Your task to perform on an android device: Open settings on Google Maps Image 0: 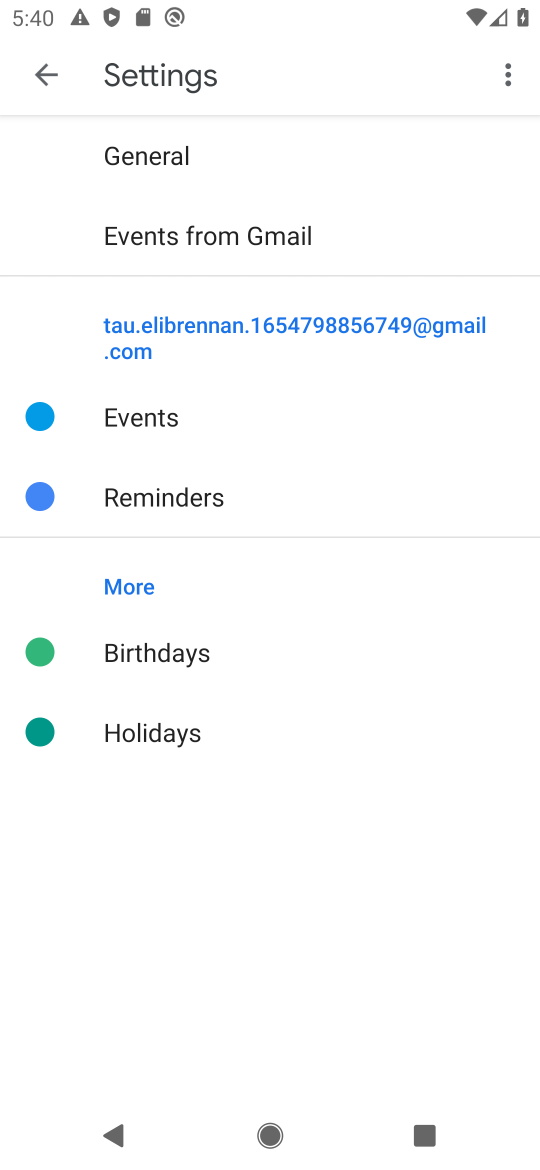
Step 0: press home button
Your task to perform on an android device: Open settings on Google Maps Image 1: 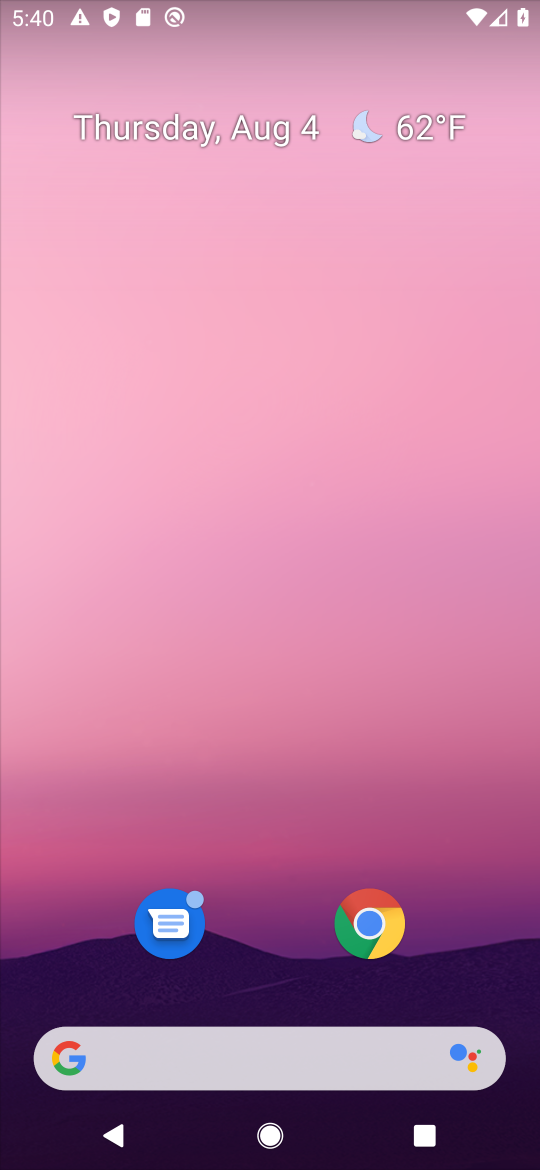
Step 1: drag from (267, 917) to (255, 371)
Your task to perform on an android device: Open settings on Google Maps Image 2: 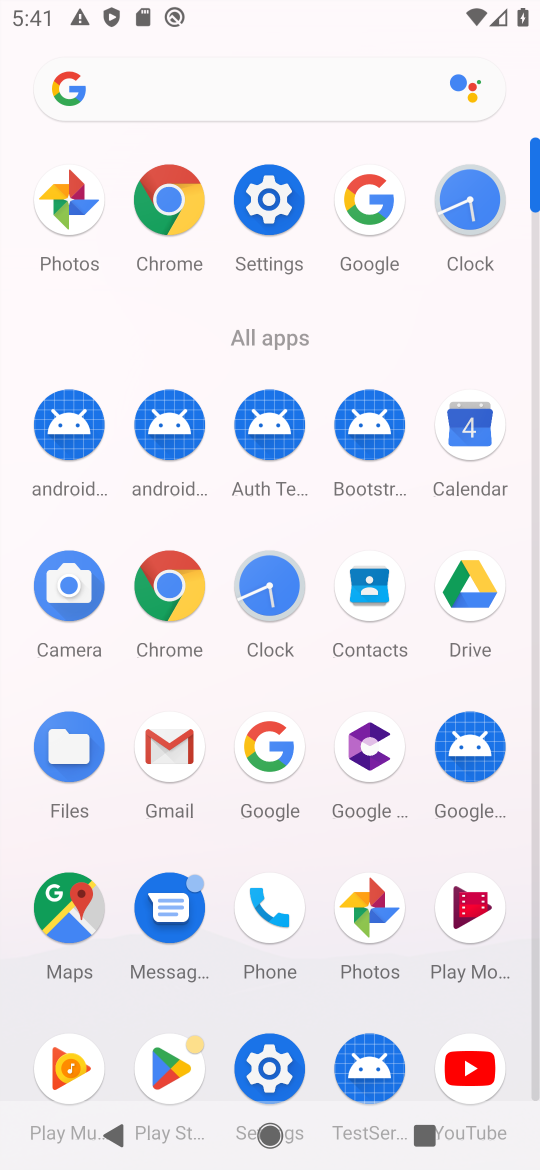
Step 2: click (65, 895)
Your task to perform on an android device: Open settings on Google Maps Image 3: 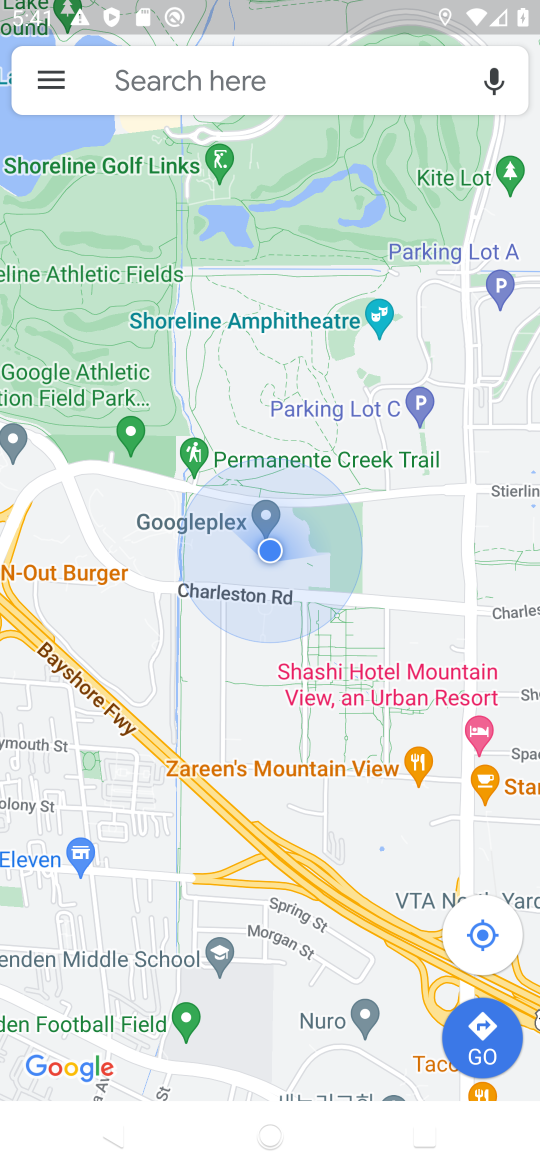
Step 3: click (51, 72)
Your task to perform on an android device: Open settings on Google Maps Image 4: 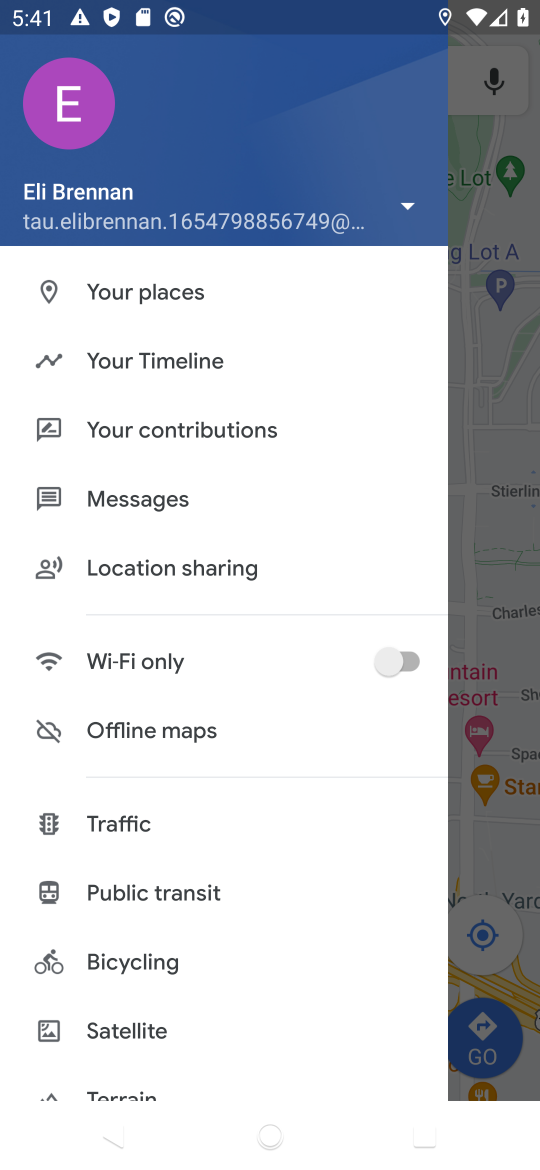
Step 4: drag from (382, 994) to (324, 448)
Your task to perform on an android device: Open settings on Google Maps Image 5: 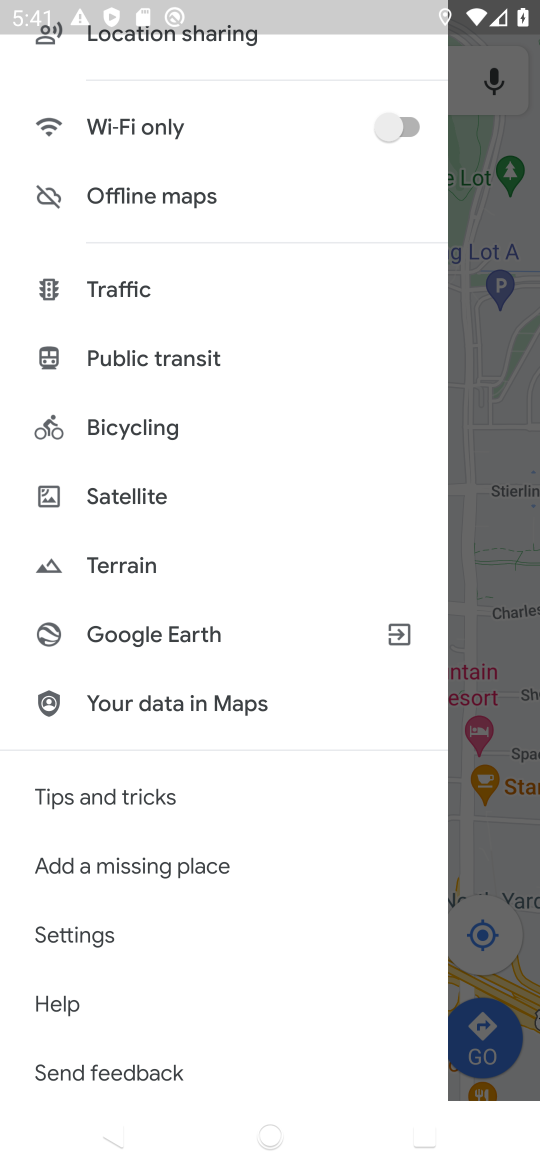
Step 5: click (89, 938)
Your task to perform on an android device: Open settings on Google Maps Image 6: 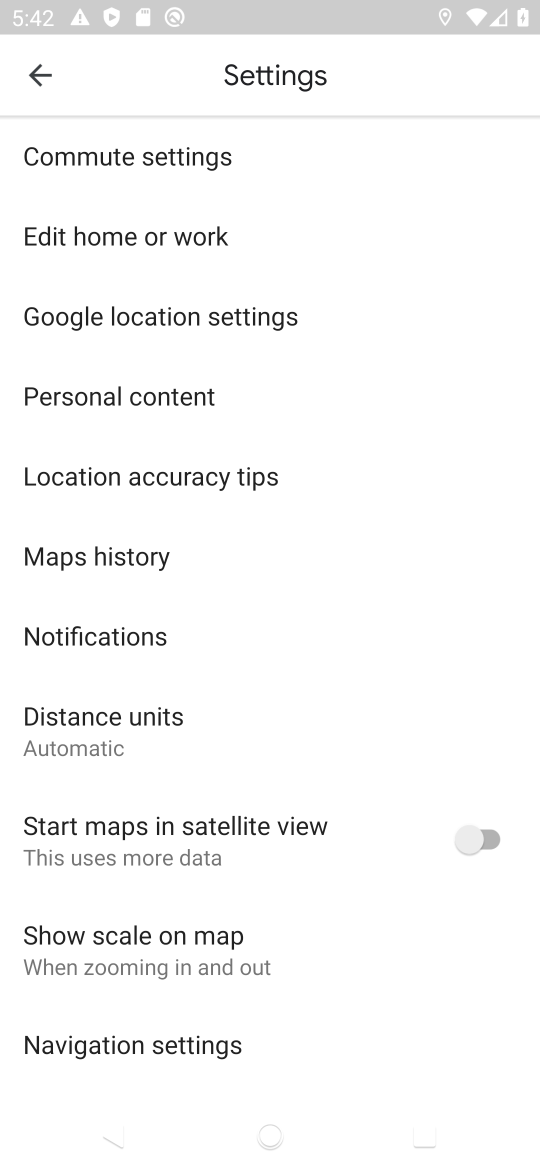
Step 6: task complete